Your task to perform on an android device: check storage Image 0: 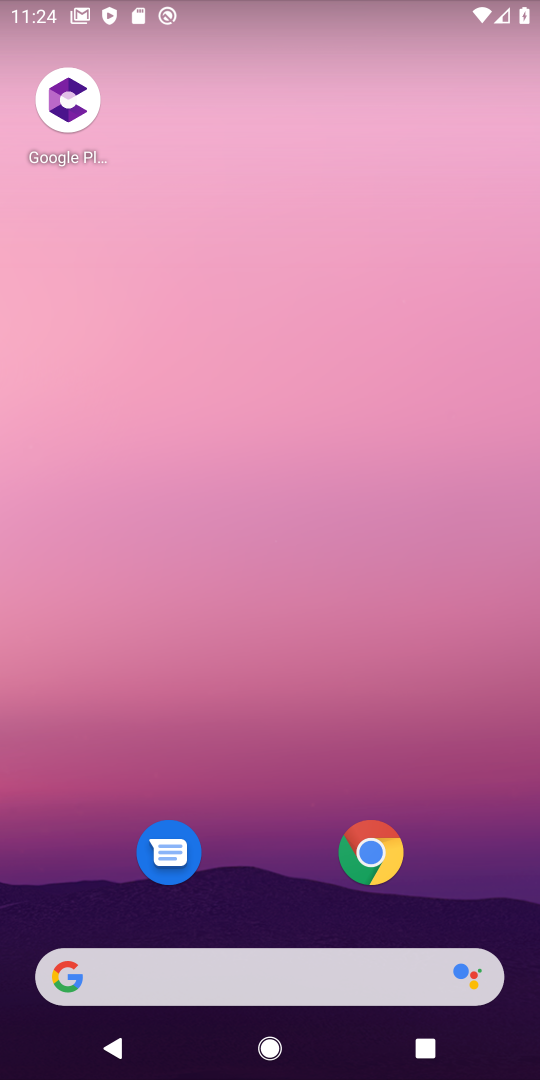
Step 0: drag from (430, 759) to (446, 222)
Your task to perform on an android device: check storage Image 1: 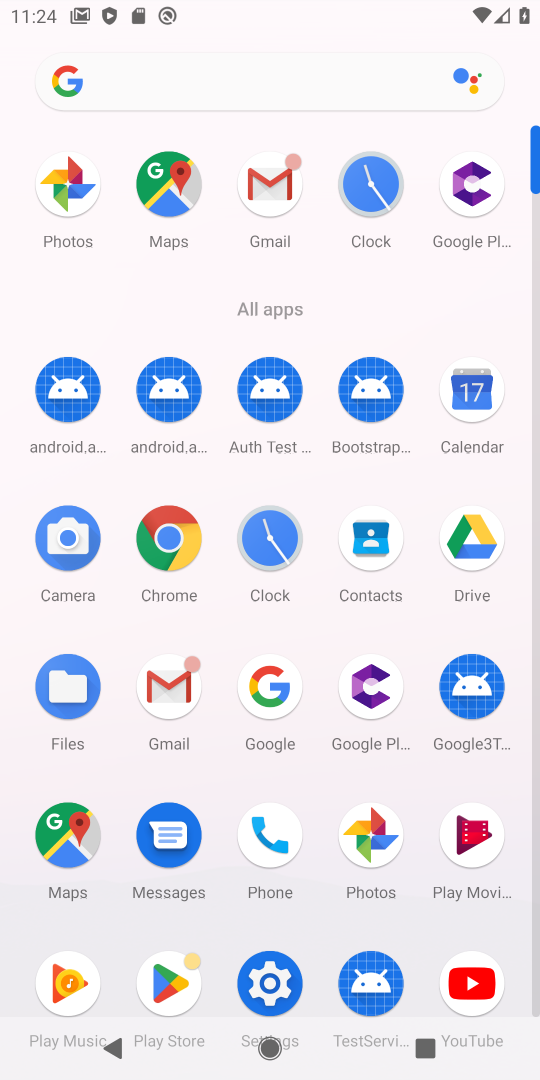
Step 1: task complete